Your task to perform on an android device: What's the news this afternoon? Image 0: 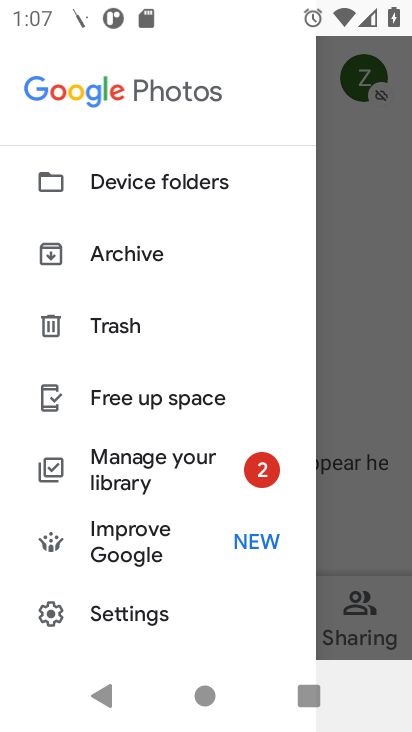
Step 0: press home button
Your task to perform on an android device: What's the news this afternoon? Image 1: 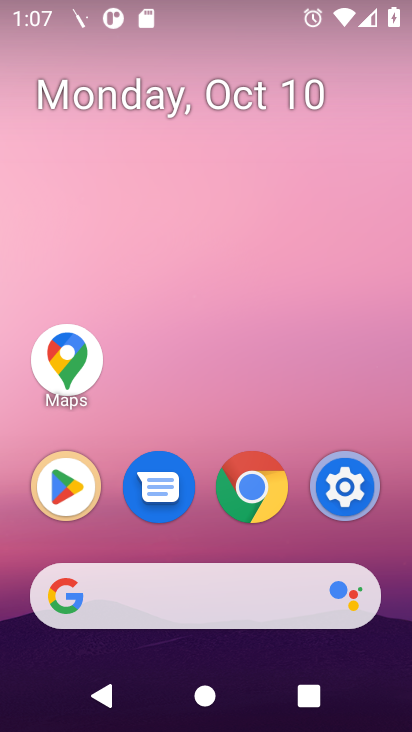
Step 1: click (249, 490)
Your task to perform on an android device: What's the news this afternoon? Image 2: 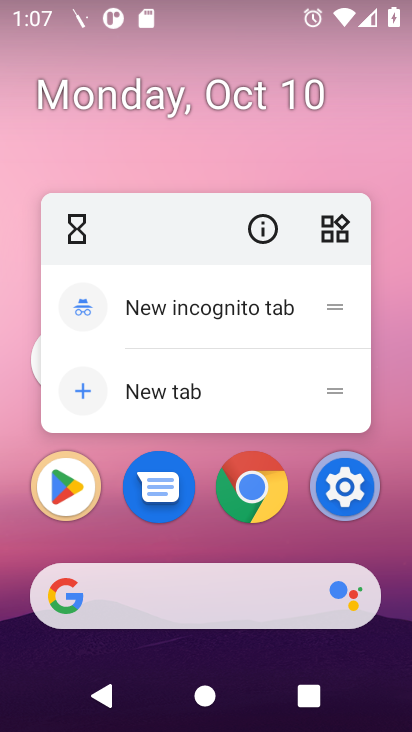
Step 2: click (273, 499)
Your task to perform on an android device: What's the news this afternoon? Image 3: 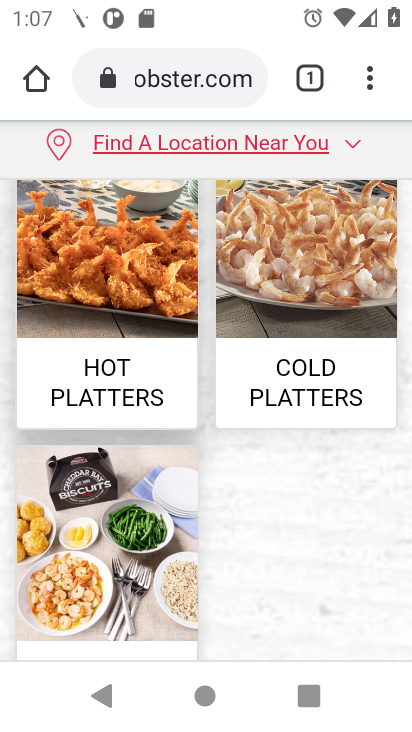
Step 3: click (211, 78)
Your task to perform on an android device: What's the news this afternoon? Image 4: 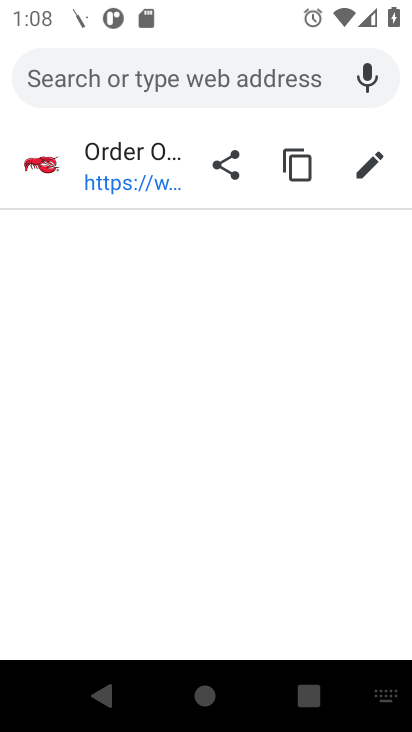
Step 4: type "what the news this afternoon"
Your task to perform on an android device: What's the news this afternoon? Image 5: 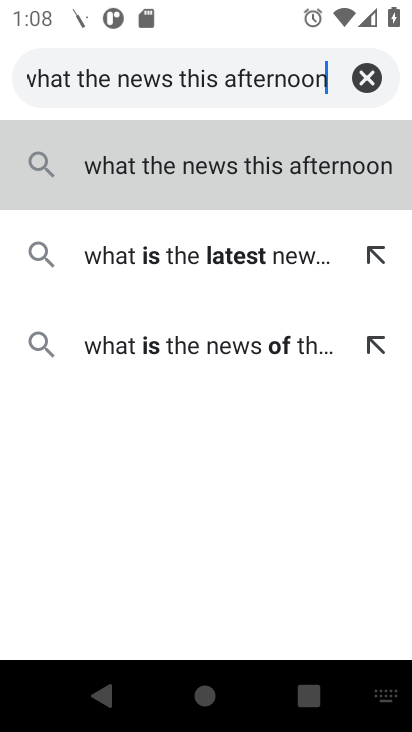
Step 5: type ""
Your task to perform on an android device: What's the news this afternoon? Image 6: 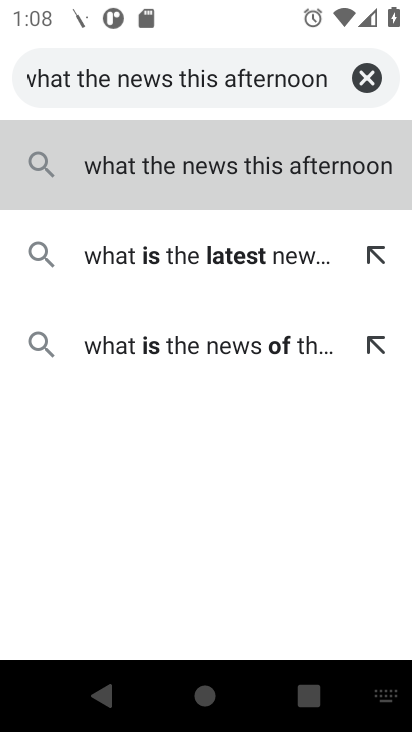
Step 6: press enter
Your task to perform on an android device: What's the news this afternoon? Image 7: 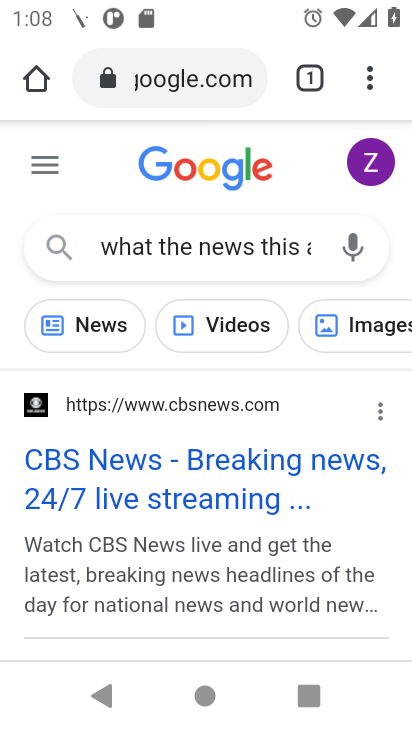
Step 7: drag from (300, 559) to (290, 472)
Your task to perform on an android device: What's the news this afternoon? Image 8: 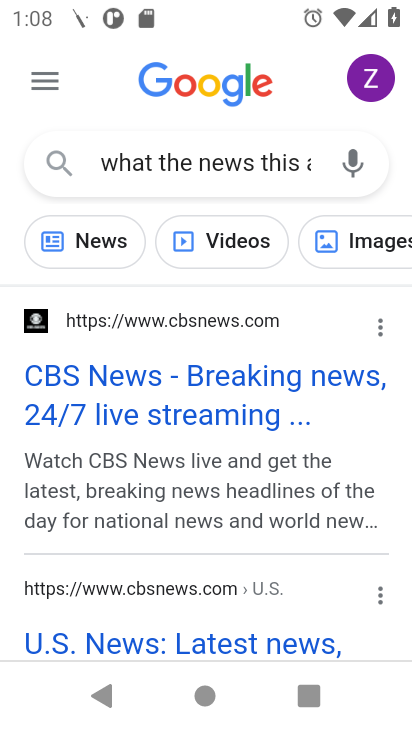
Step 8: click (103, 258)
Your task to perform on an android device: What's the news this afternoon? Image 9: 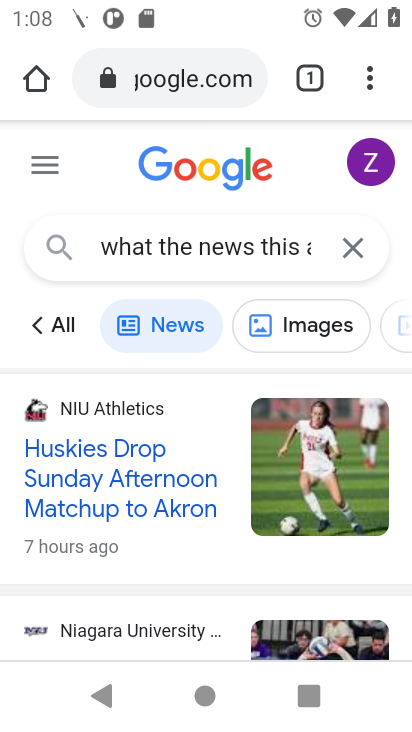
Step 9: task complete